Your task to perform on an android device: turn on sleep mode Image 0: 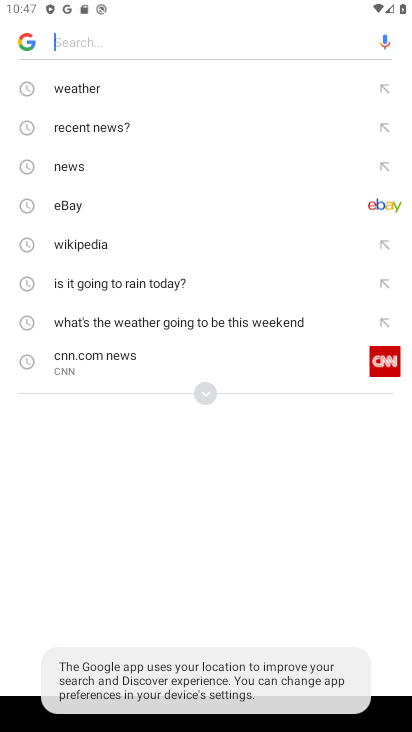
Step 0: press home button
Your task to perform on an android device: turn on sleep mode Image 1: 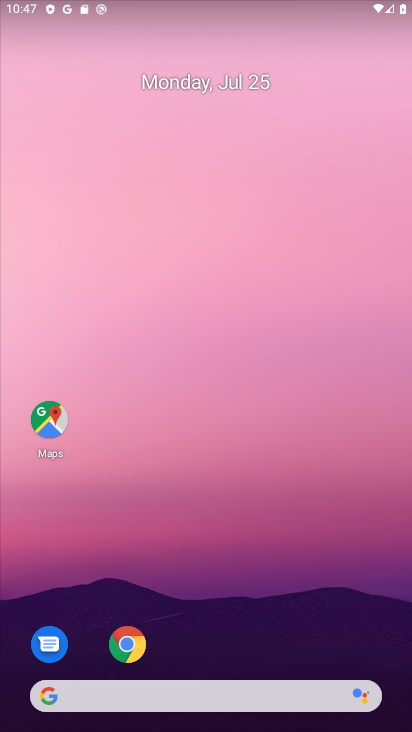
Step 1: drag from (298, 564) to (237, 23)
Your task to perform on an android device: turn on sleep mode Image 2: 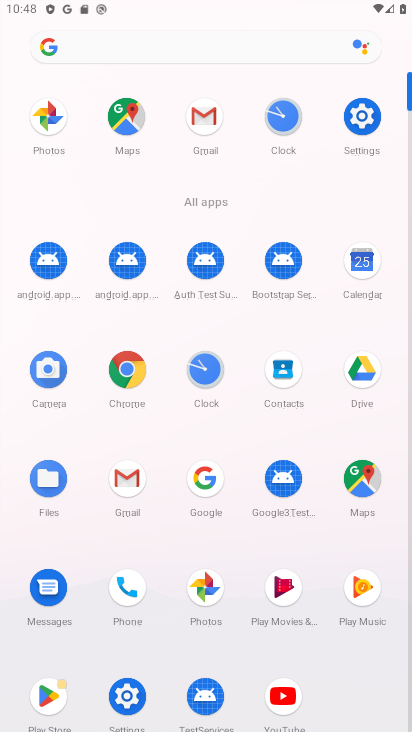
Step 2: click (365, 127)
Your task to perform on an android device: turn on sleep mode Image 3: 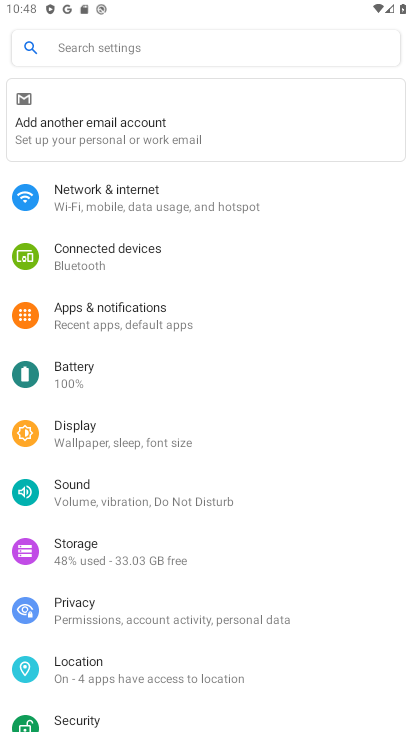
Step 3: click (180, 445)
Your task to perform on an android device: turn on sleep mode Image 4: 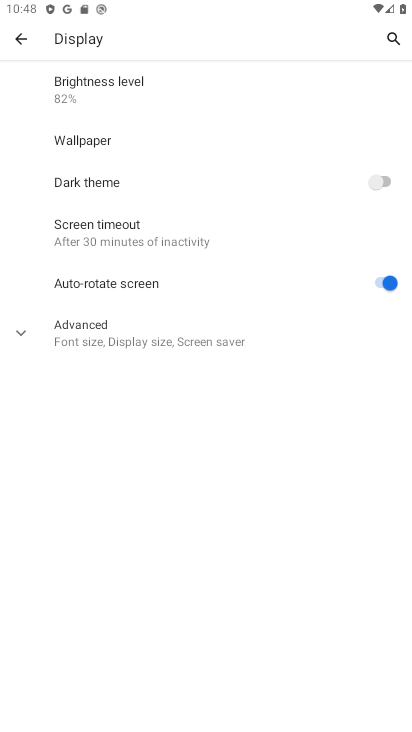
Step 4: click (236, 331)
Your task to perform on an android device: turn on sleep mode Image 5: 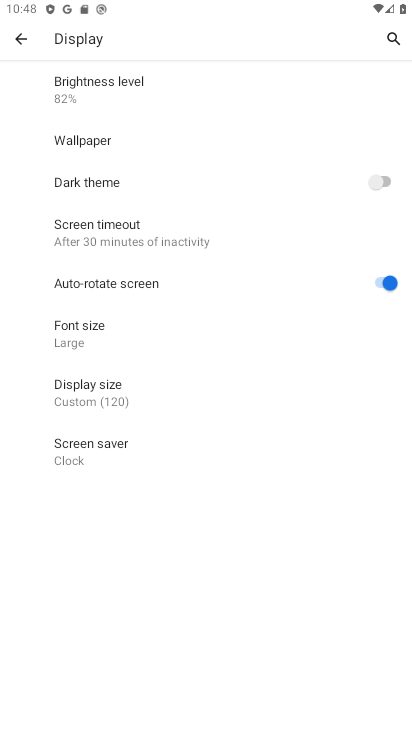
Step 5: task complete